Your task to perform on an android device: Open maps Image 0: 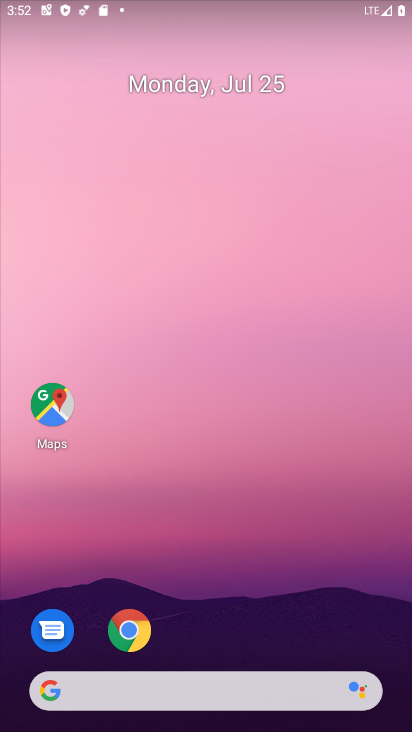
Step 0: click (50, 420)
Your task to perform on an android device: Open maps Image 1: 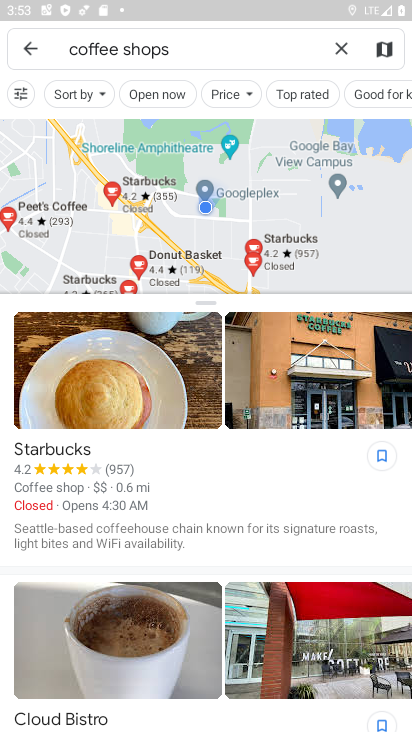
Step 1: click (25, 41)
Your task to perform on an android device: Open maps Image 2: 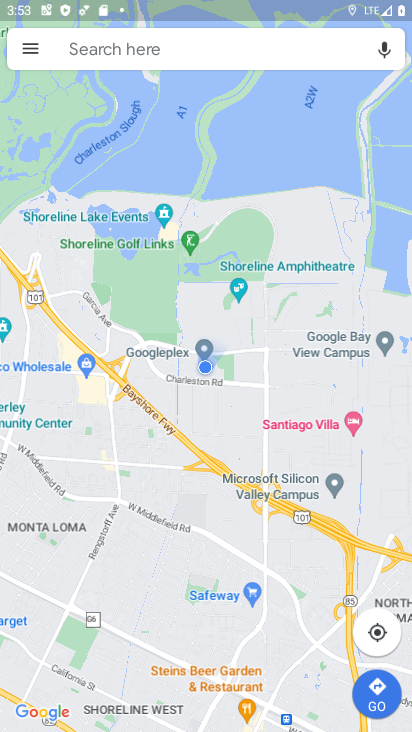
Step 2: task complete